Your task to perform on an android device: Open Google Chrome Image 0: 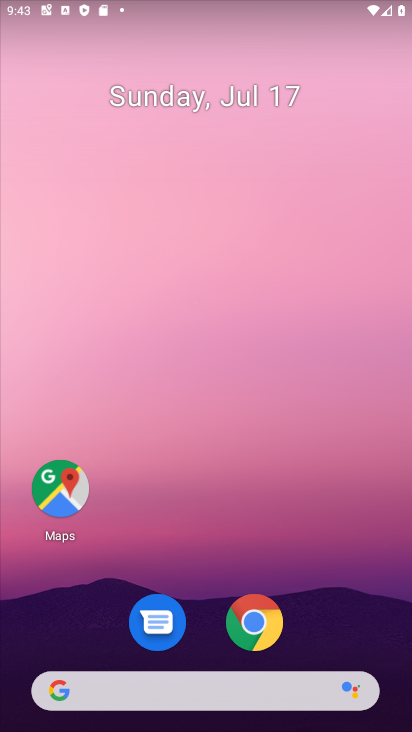
Step 0: click (266, 614)
Your task to perform on an android device: Open Google Chrome Image 1: 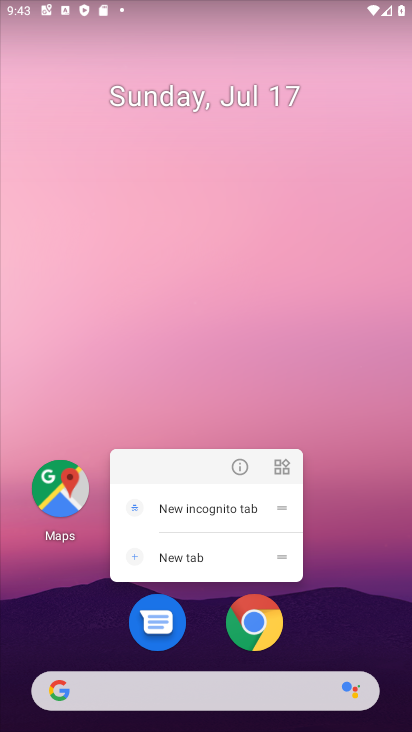
Step 1: click (266, 614)
Your task to perform on an android device: Open Google Chrome Image 2: 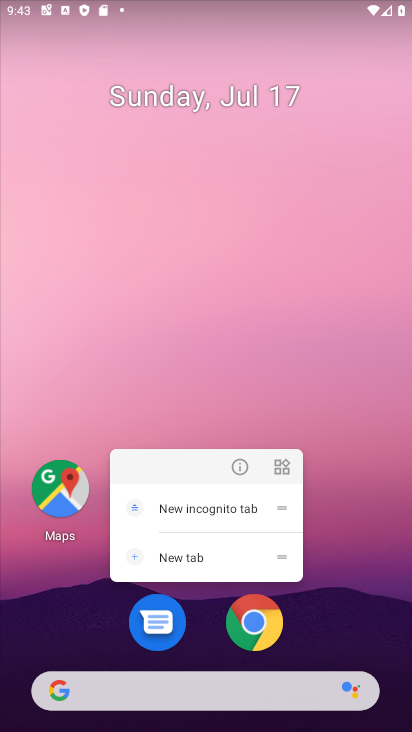
Step 2: click (266, 614)
Your task to perform on an android device: Open Google Chrome Image 3: 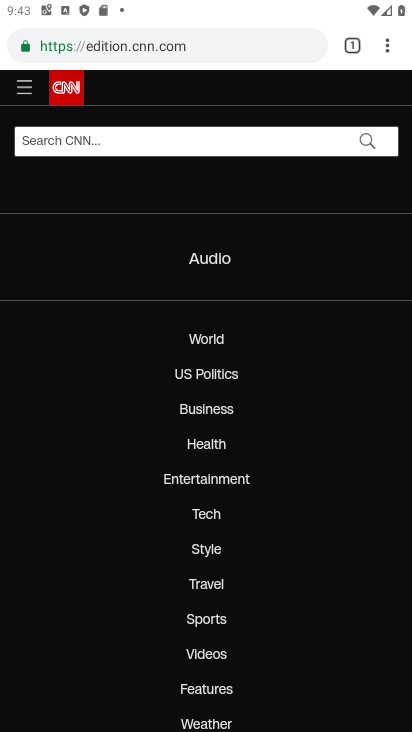
Step 3: task complete